Your task to perform on an android device: Turn off the flashlight Image 0: 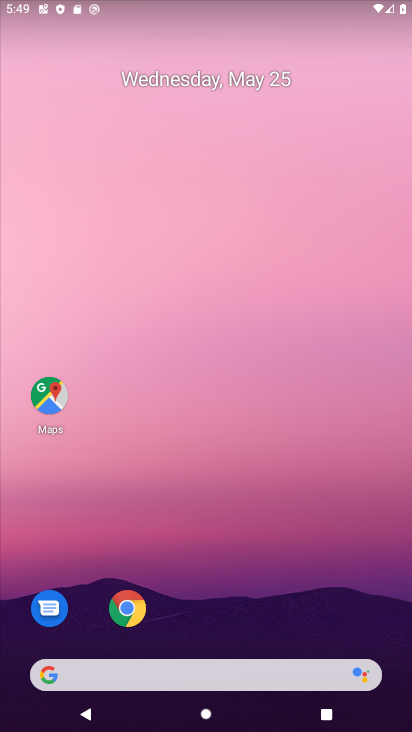
Step 0: drag from (185, 619) to (239, 111)
Your task to perform on an android device: Turn off the flashlight Image 1: 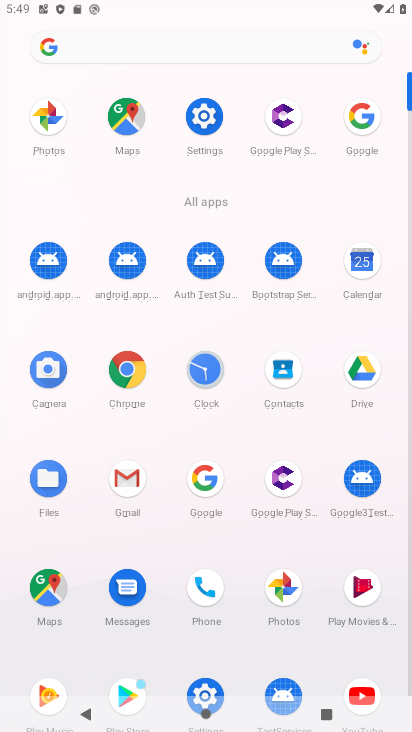
Step 1: task complete